Your task to perform on an android device: Turn on the flashlight Image 0: 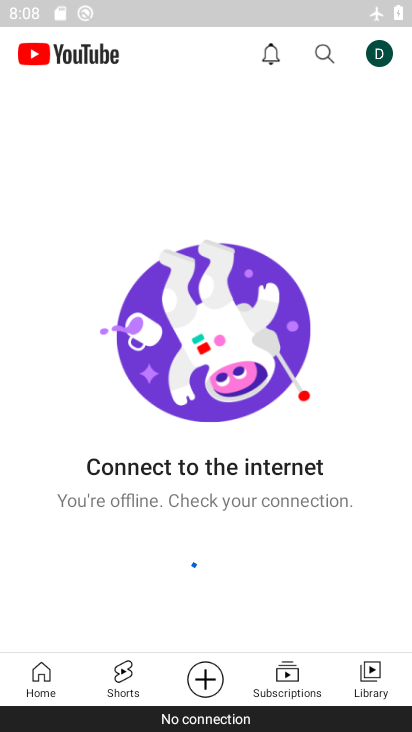
Step 0: press home button
Your task to perform on an android device: Turn on the flashlight Image 1: 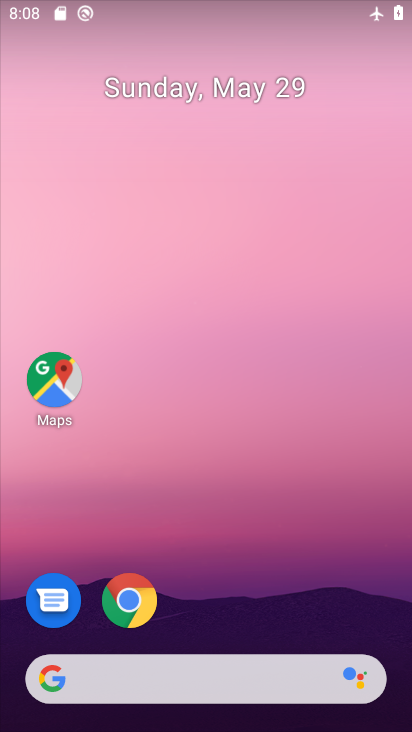
Step 1: drag from (236, 633) to (230, 2)
Your task to perform on an android device: Turn on the flashlight Image 2: 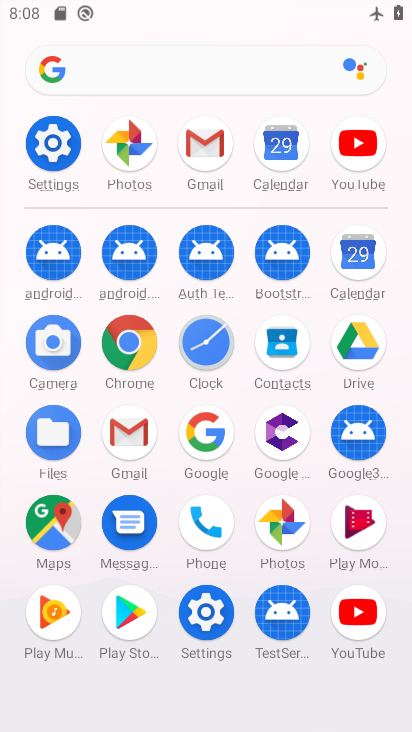
Step 2: click (39, 159)
Your task to perform on an android device: Turn on the flashlight Image 3: 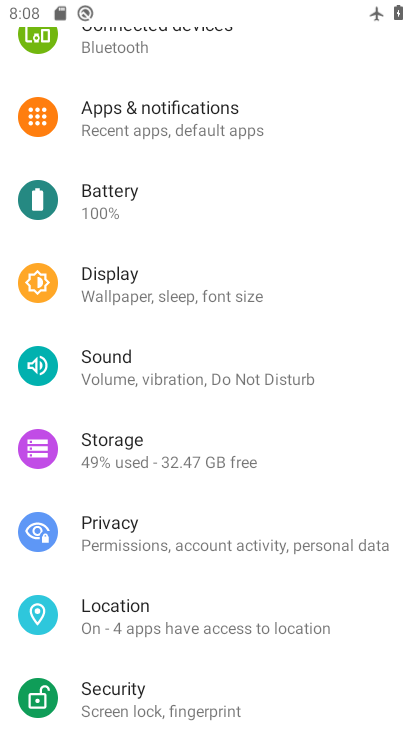
Step 3: drag from (204, 135) to (200, 420)
Your task to perform on an android device: Turn on the flashlight Image 4: 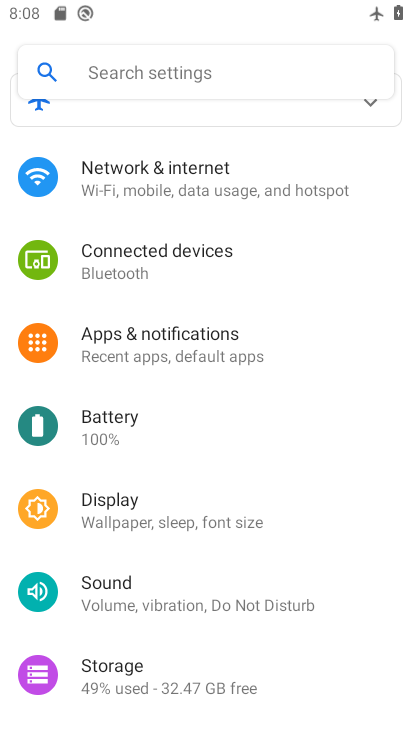
Step 4: click (253, 71)
Your task to perform on an android device: Turn on the flashlight Image 5: 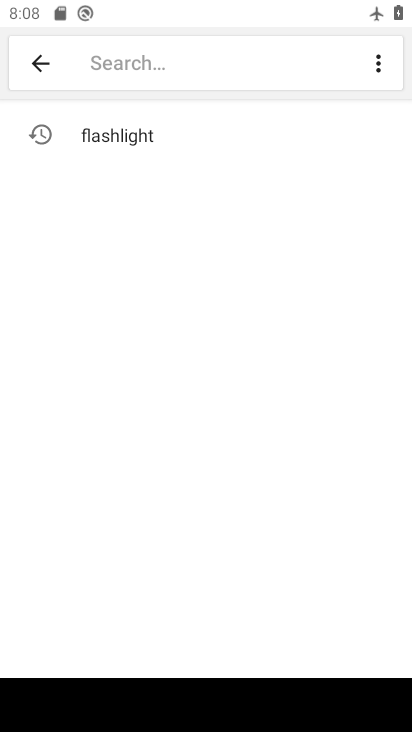
Step 5: type "flashlight"
Your task to perform on an android device: Turn on the flashlight Image 6: 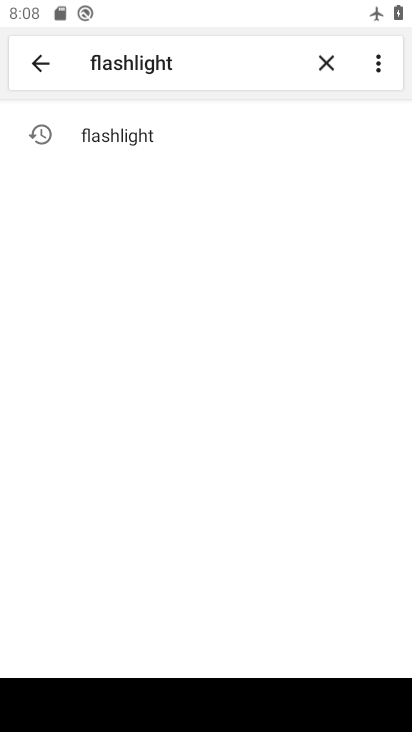
Step 6: click (182, 144)
Your task to perform on an android device: Turn on the flashlight Image 7: 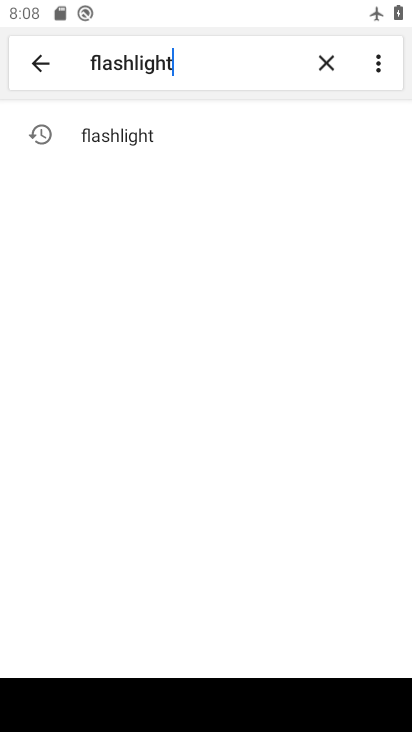
Step 7: click (181, 143)
Your task to perform on an android device: Turn on the flashlight Image 8: 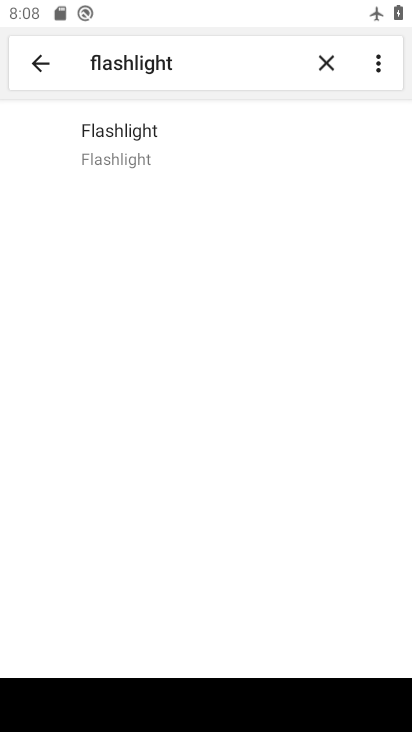
Step 8: click (181, 143)
Your task to perform on an android device: Turn on the flashlight Image 9: 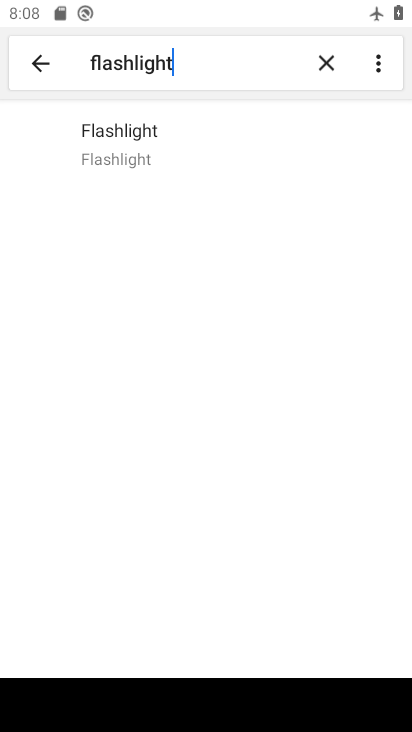
Step 9: task complete